Your task to perform on an android device: toggle javascript in the chrome app Image 0: 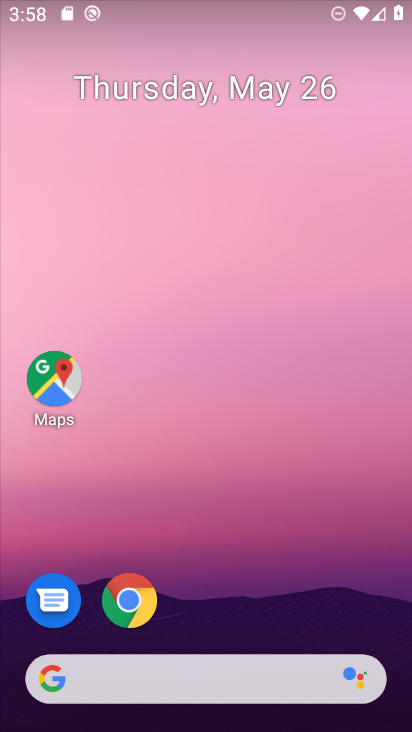
Step 0: drag from (257, 554) to (195, 77)
Your task to perform on an android device: toggle javascript in the chrome app Image 1: 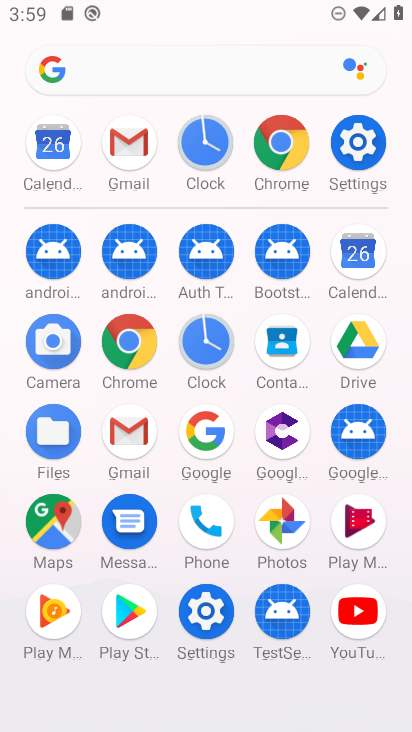
Step 1: drag from (10, 581) to (14, 245)
Your task to perform on an android device: toggle javascript in the chrome app Image 2: 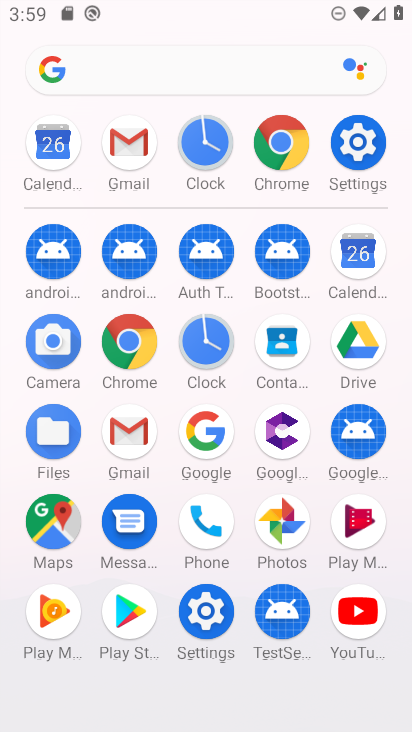
Step 2: click (128, 337)
Your task to perform on an android device: toggle javascript in the chrome app Image 3: 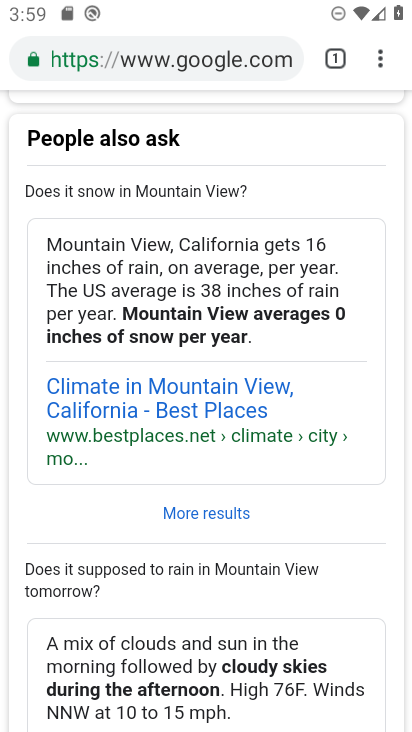
Step 3: drag from (379, 58) to (203, 616)
Your task to perform on an android device: toggle javascript in the chrome app Image 4: 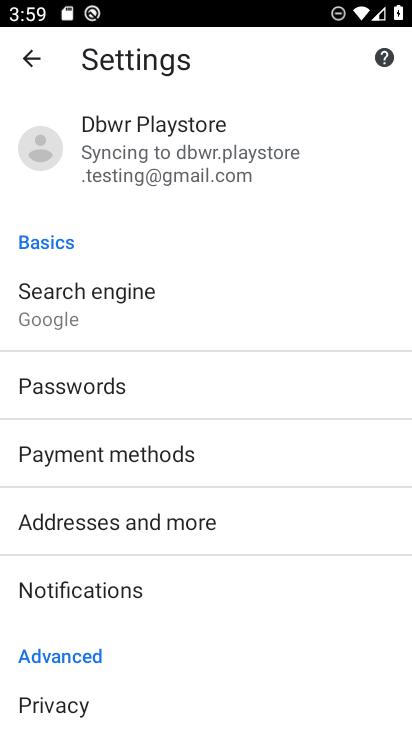
Step 4: drag from (201, 640) to (224, 212)
Your task to perform on an android device: toggle javascript in the chrome app Image 5: 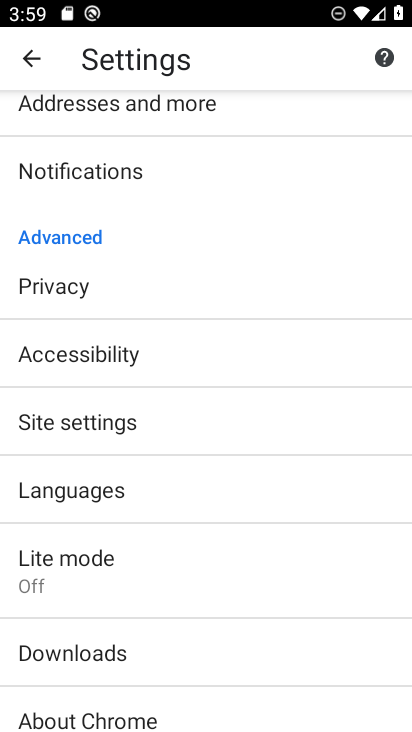
Step 5: click (100, 426)
Your task to perform on an android device: toggle javascript in the chrome app Image 6: 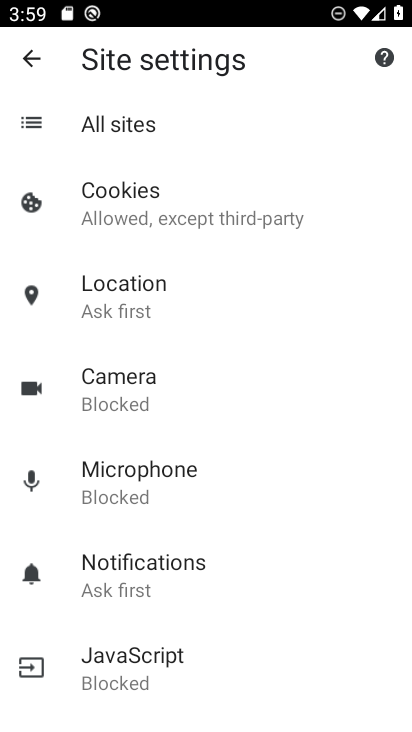
Step 6: click (182, 661)
Your task to perform on an android device: toggle javascript in the chrome app Image 7: 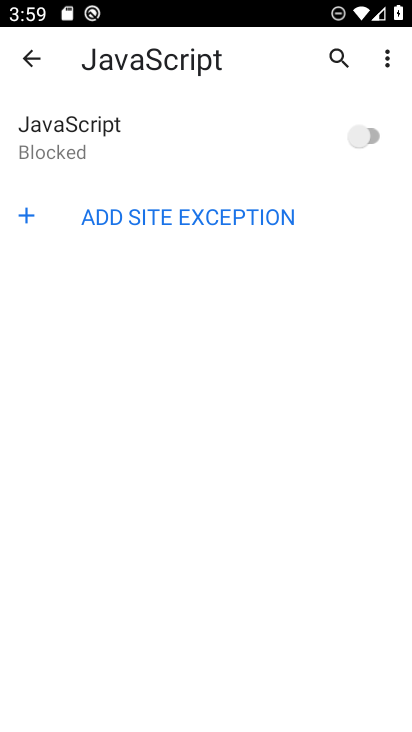
Step 7: click (356, 138)
Your task to perform on an android device: toggle javascript in the chrome app Image 8: 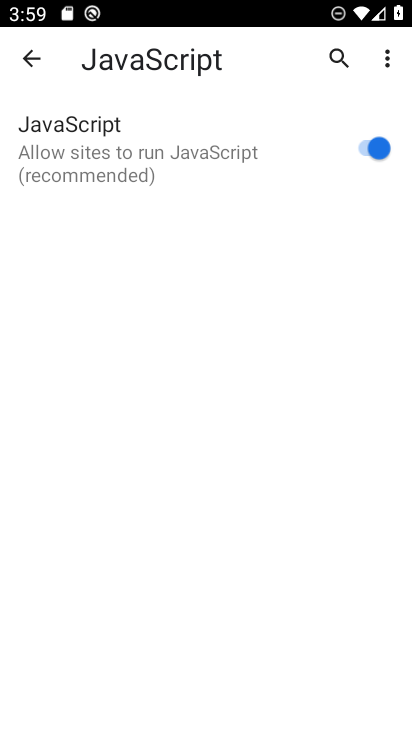
Step 8: task complete